Your task to perform on an android device: Open eBay Image 0: 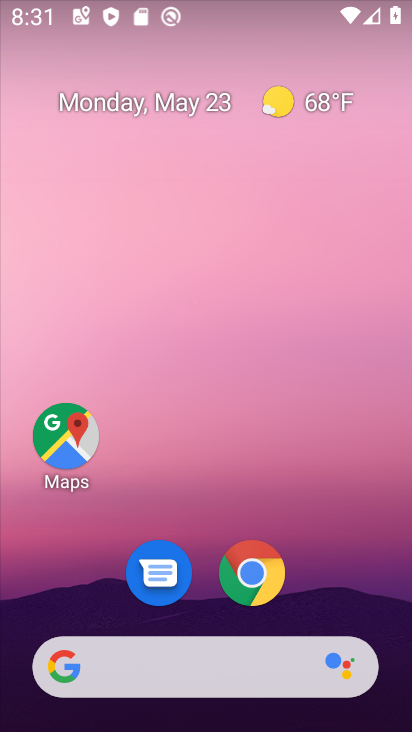
Step 0: drag from (173, 658) to (272, 163)
Your task to perform on an android device: Open eBay Image 1: 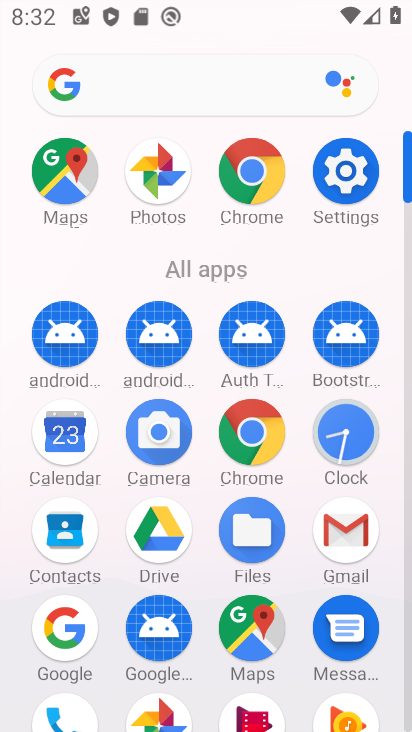
Step 1: click (352, 193)
Your task to perform on an android device: Open eBay Image 2: 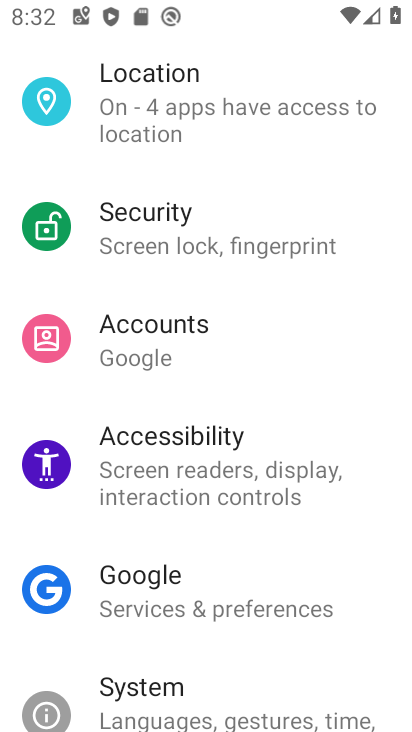
Step 2: press home button
Your task to perform on an android device: Open eBay Image 3: 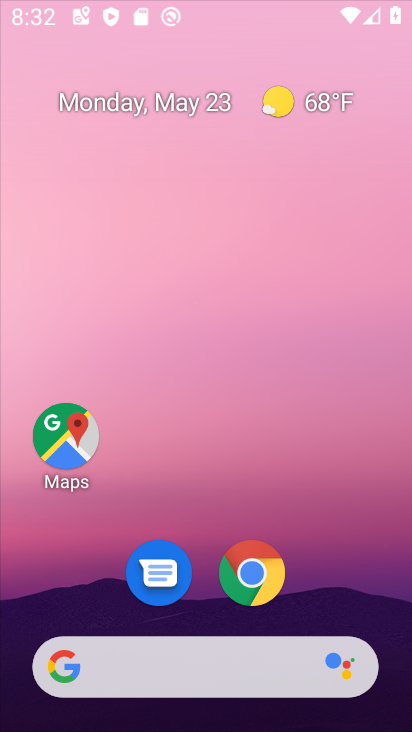
Step 3: drag from (171, 631) to (261, 75)
Your task to perform on an android device: Open eBay Image 4: 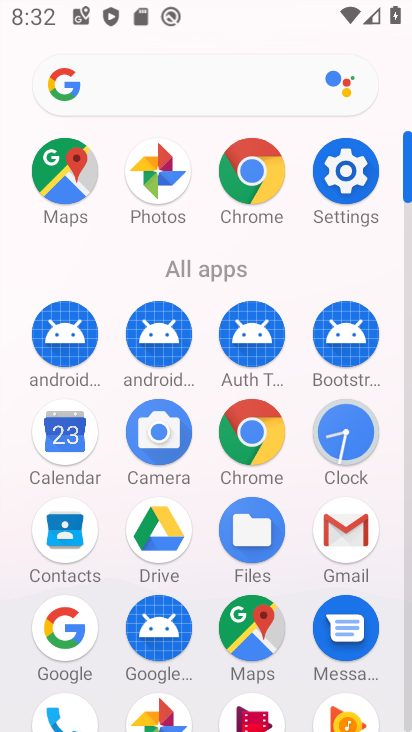
Step 4: click (257, 206)
Your task to perform on an android device: Open eBay Image 5: 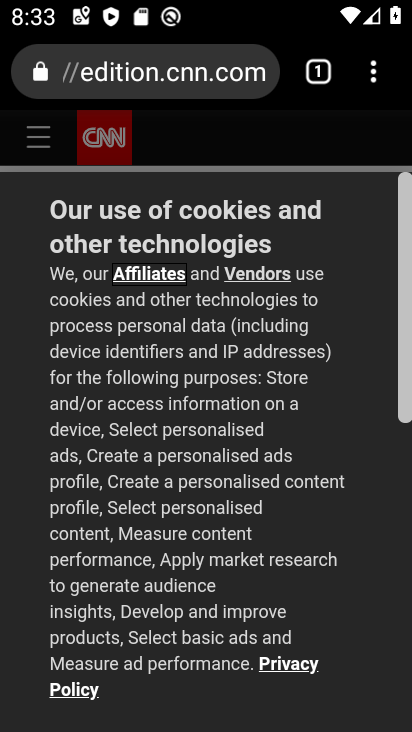
Step 5: click (242, 86)
Your task to perform on an android device: Open eBay Image 6: 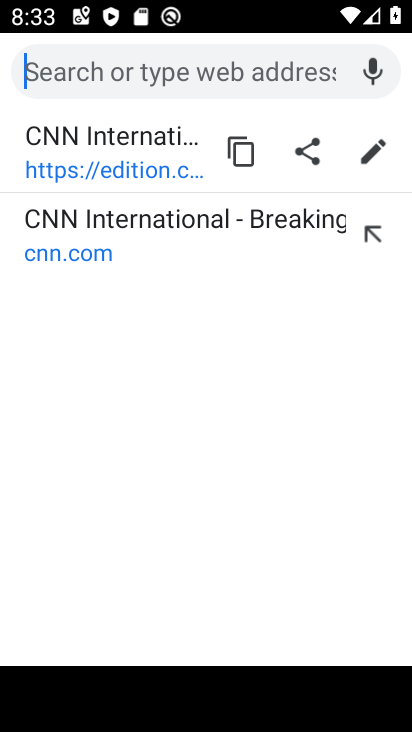
Step 6: type "ebay"
Your task to perform on an android device: Open eBay Image 7: 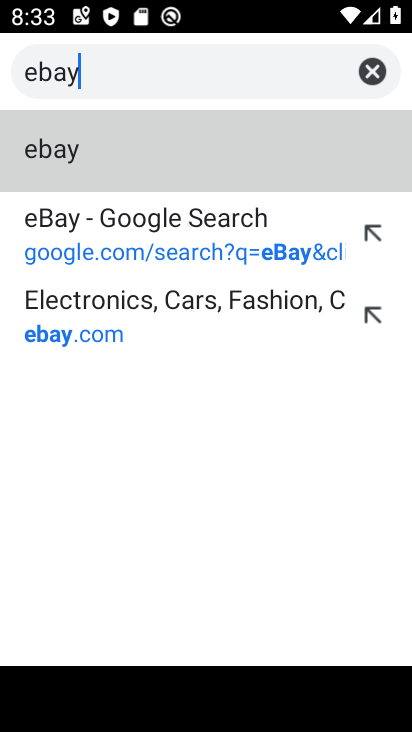
Step 7: click (132, 325)
Your task to perform on an android device: Open eBay Image 8: 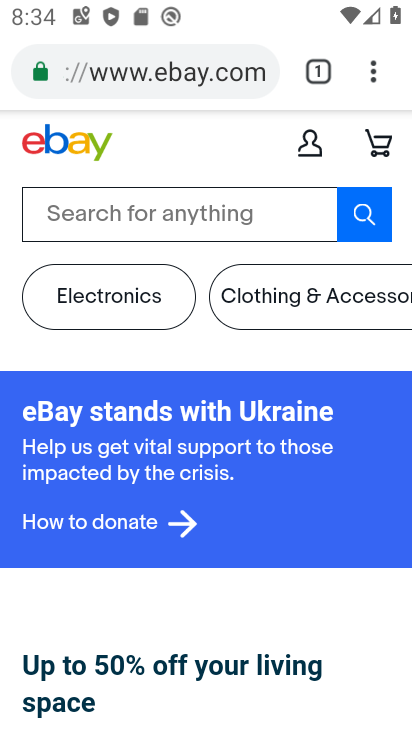
Step 8: task complete